Your task to perform on an android device: Open internet settings Image 0: 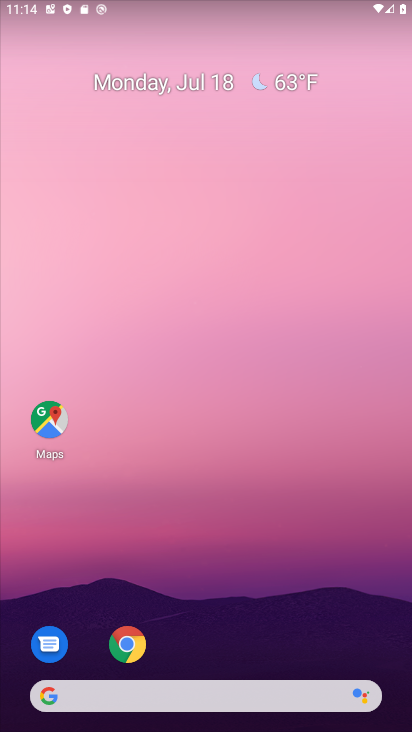
Step 0: drag from (218, 725) to (226, 38)
Your task to perform on an android device: Open internet settings Image 1: 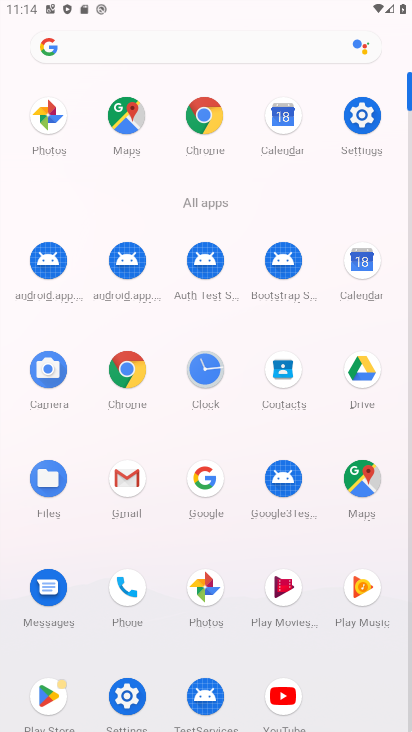
Step 1: click (357, 115)
Your task to perform on an android device: Open internet settings Image 2: 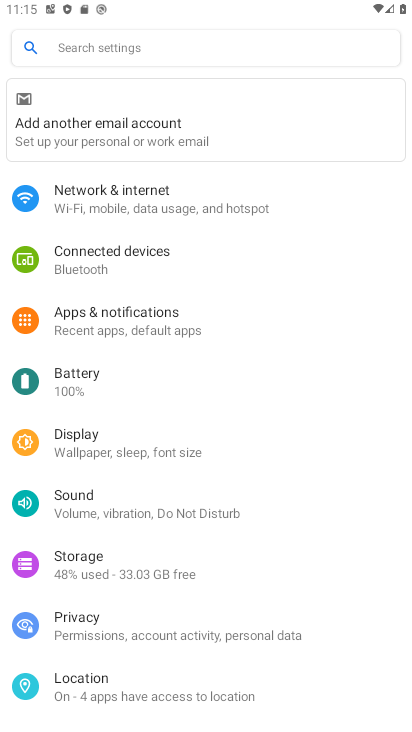
Step 2: click (128, 200)
Your task to perform on an android device: Open internet settings Image 3: 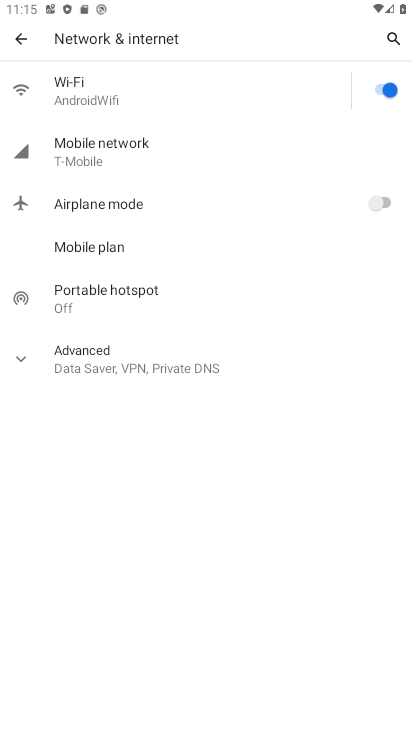
Step 3: task complete